Your task to perform on an android device: allow notifications from all sites in the chrome app Image 0: 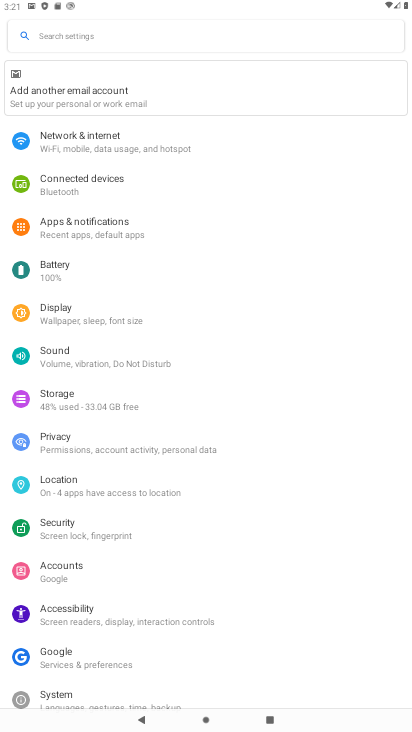
Step 0: press home button
Your task to perform on an android device: allow notifications from all sites in the chrome app Image 1: 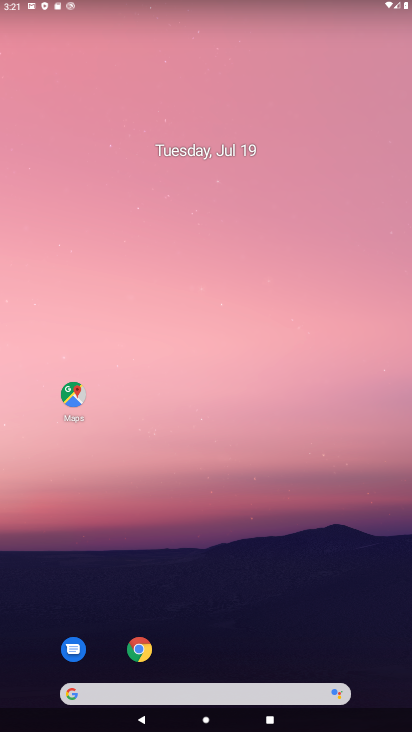
Step 1: drag from (164, 604) to (161, 282)
Your task to perform on an android device: allow notifications from all sites in the chrome app Image 2: 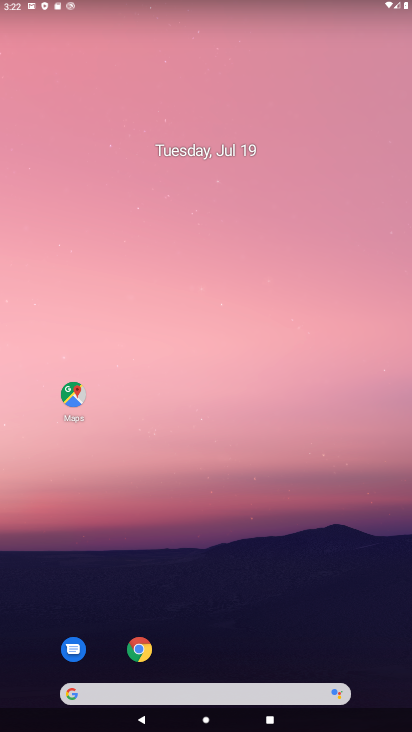
Step 2: click (142, 646)
Your task to perform on an android device: allow notifications from all sites in the chrome app Image 3: 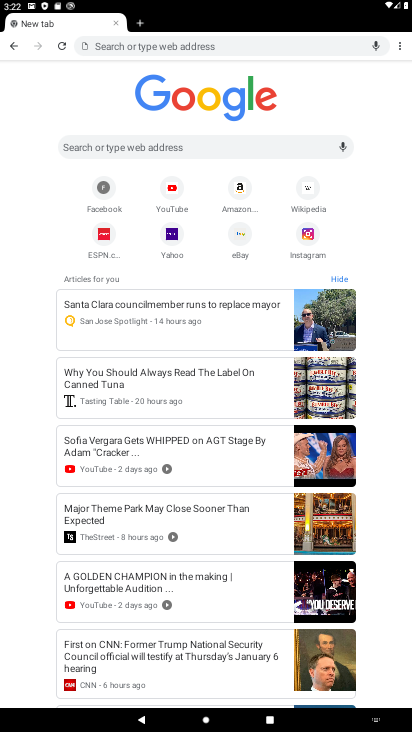
Step 3: click (401, 50)
Your task to perform on an android device: allow notifications from all sites in the chrome app Image 4: 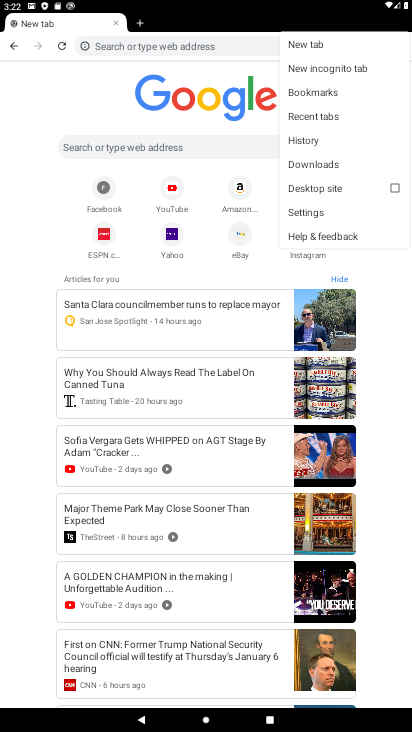
Step 4: click (304, 210)
Your task to perform on an android device: allow notifications from all sites in the chrome app Image 5: 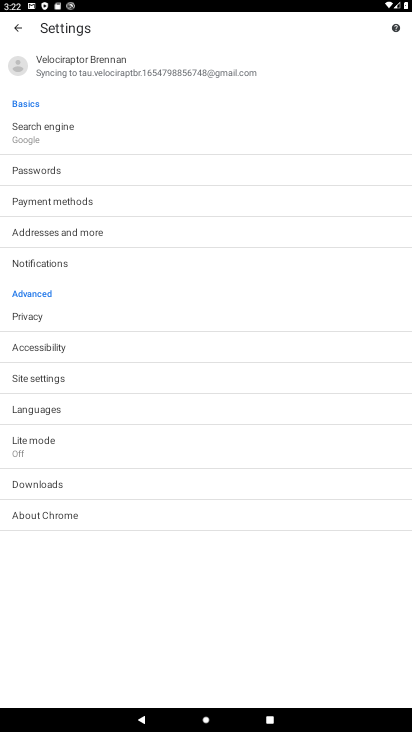
Step 5: click (40, 379)
Your task to perform on an android device: allow notifications from all sites in the chrome app Image 6: 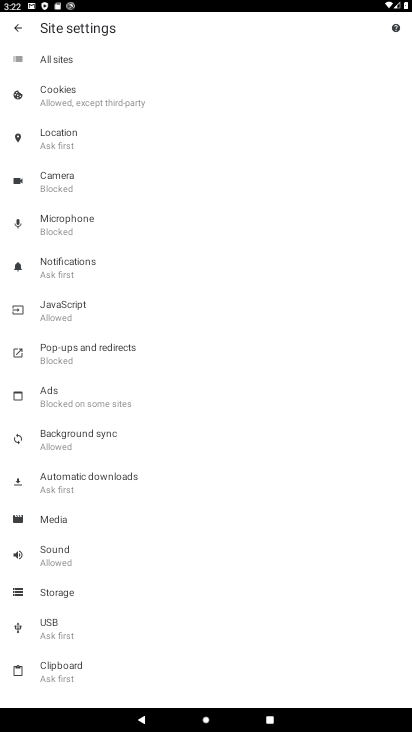
Step 6: click (57, 262)
Your task to perform on an android device: allow notifications from all sites in the chrome app Image 7: 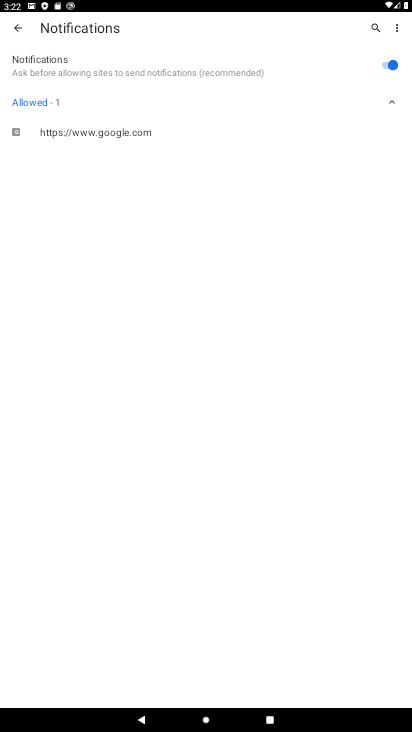
Step 7: task complete